Your task to perform on an android device: When is my next appointment? Image 0: 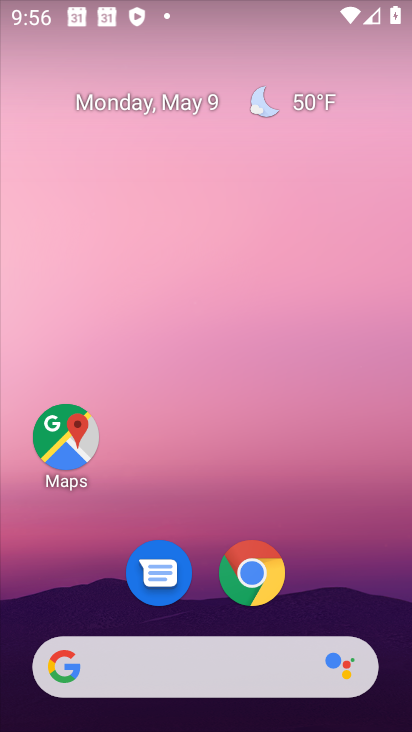
Step 0: drag from (320, 506) to (312, 67)
Your task to perform on an android device: When is my next appointment? Image 1: 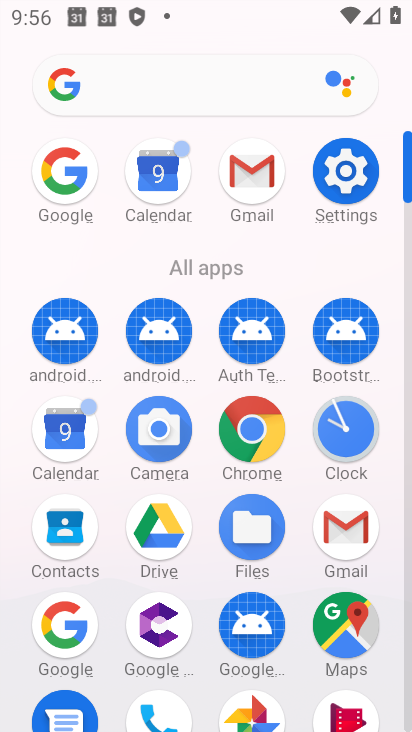
Step 1: click (75, 436)
Your task to perform on an android device: When is my next appointment? Image 2: 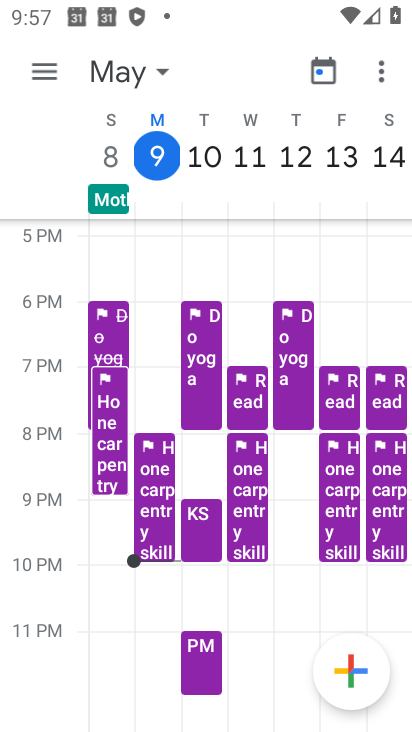
Step 2: task complete